Your task to perform on an android device: check google app version Image 0: 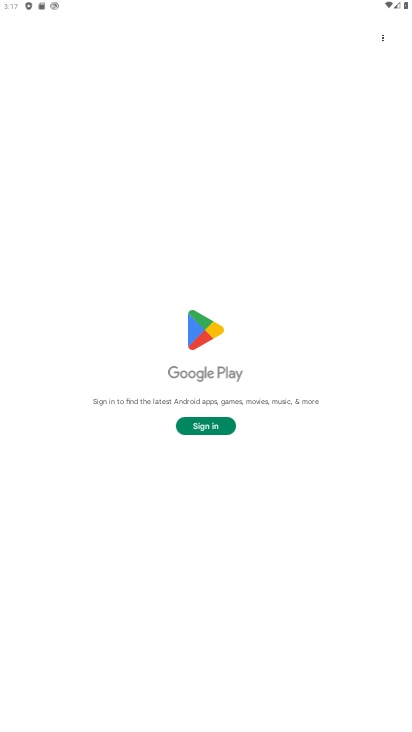
Step 0: press home button
Your task to perform on an android device: check google app version Image 1: 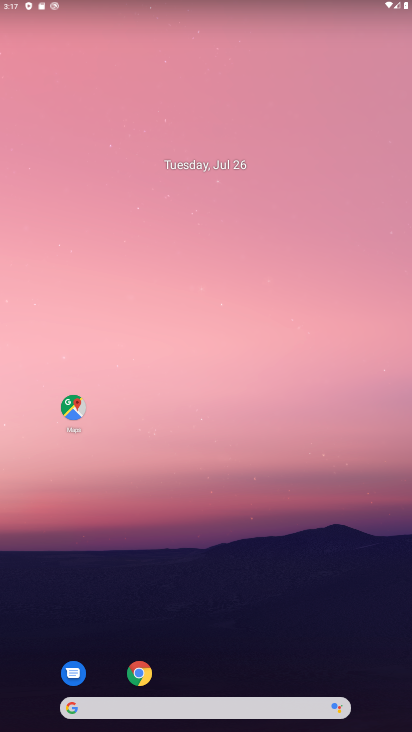
Step 1: drag from (305, 668) to (278, 149)
Your task to perform on an android device: check google app version Image 2: 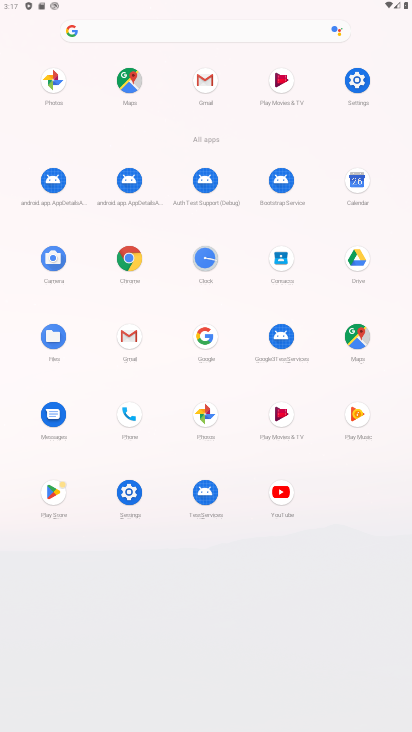
Step 2: click (210, 333)
Your task to perform on an android device: check google app version Image 3: 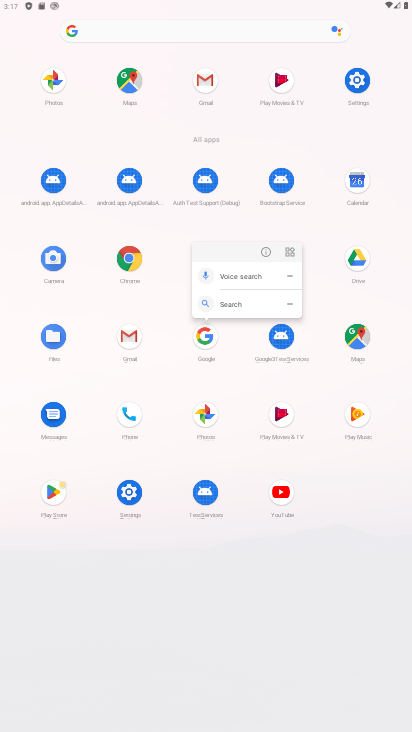
Step 3: click (265, 249)
Your task to perform on an android device: check google app version Image 4: 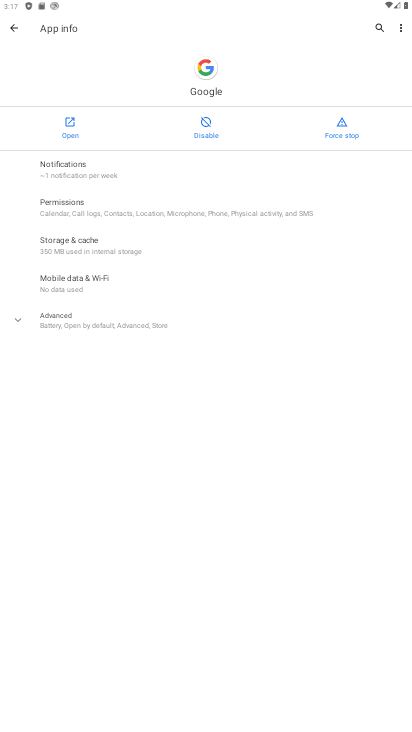
Step 4: click (153, 322)
Your task to perform on an android device: check google app version Image 5: 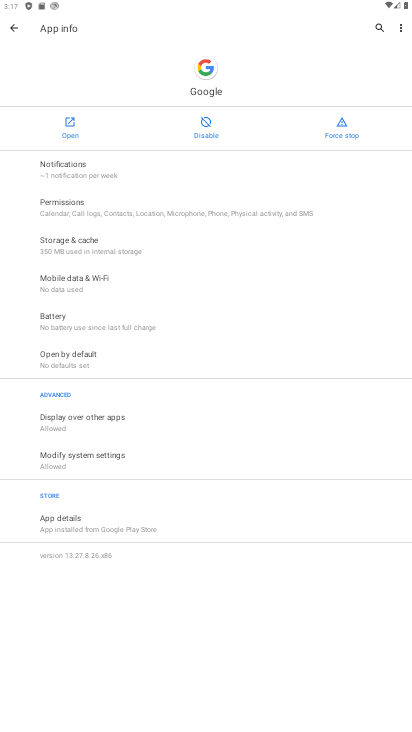
Step 5: task complete